Your task to perform on an android device: Open calendar and show me the second week of next month Image 0: 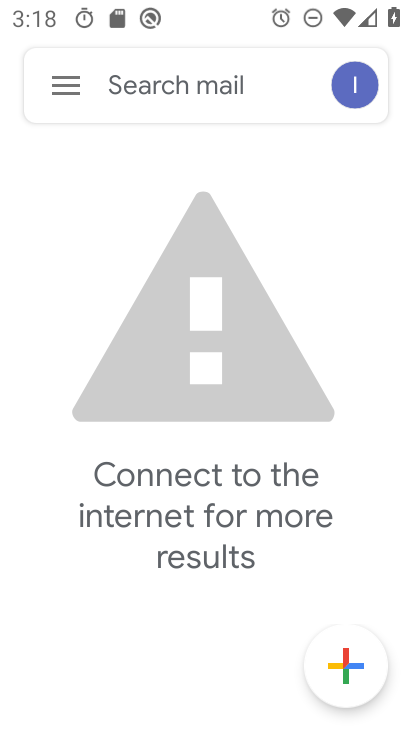
Step 0: press home button
Your task to perform on an android device: Open calendar and show me the second week of next month Image 1: 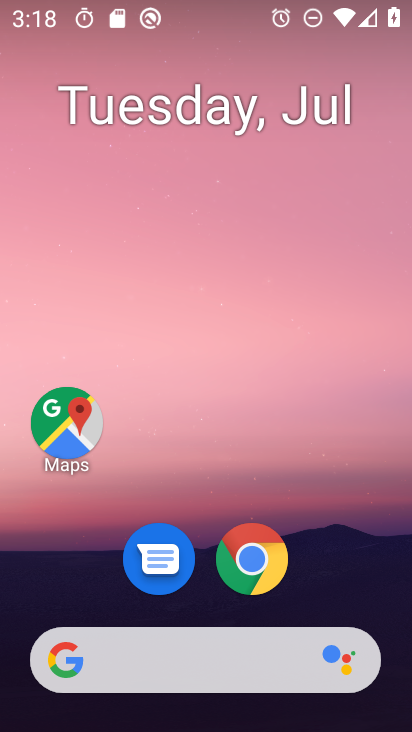
Step 1: drag from (384, 593) to (388, 198)
Your task to perform on an android device: Open calendar and show me the second week of next month Image 2: 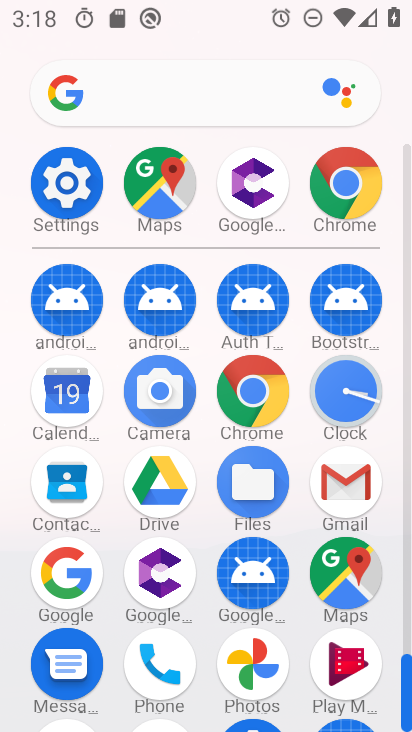
Step 2: click (74, 391)
Your task to perform on an android device: Open calendar and show me the second week of next month Image 3: 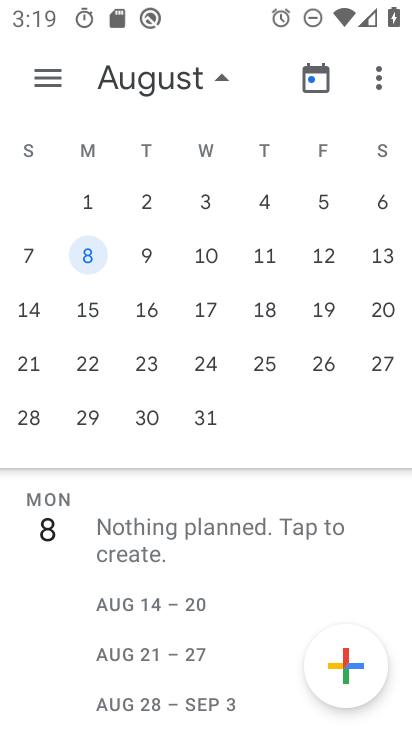
Step 3: task complete